Your task to perform on an android device: Do I have any events this weekend? Image 0: 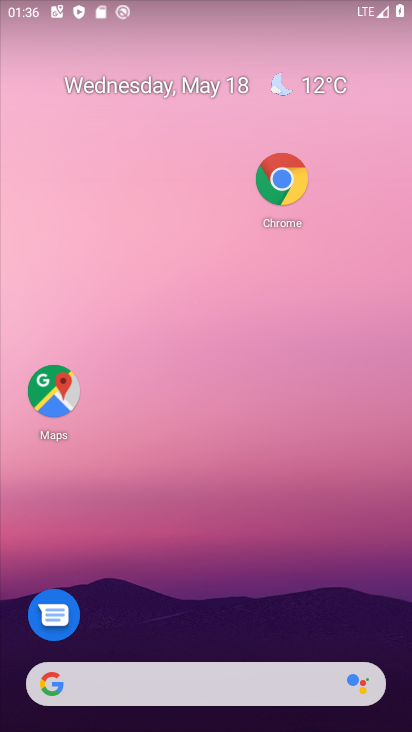
Step 0: press home button
Your task to perform on an android device: Do I have any events this weekend? Image 1: 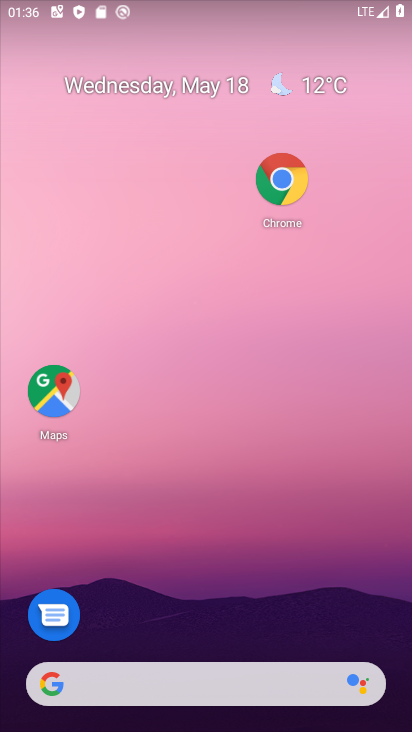
Step 1: drag from (140, 687) to (253, 147)
Your task to perform on an android device: Do I have any events this weekend? Image 2: 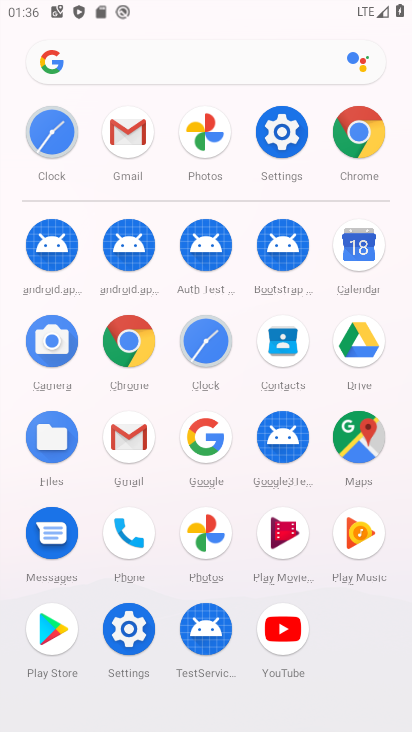
Step 2: click (355, 251)
Your task to perform on an android device: Do I have any events this weekend? Image 3: 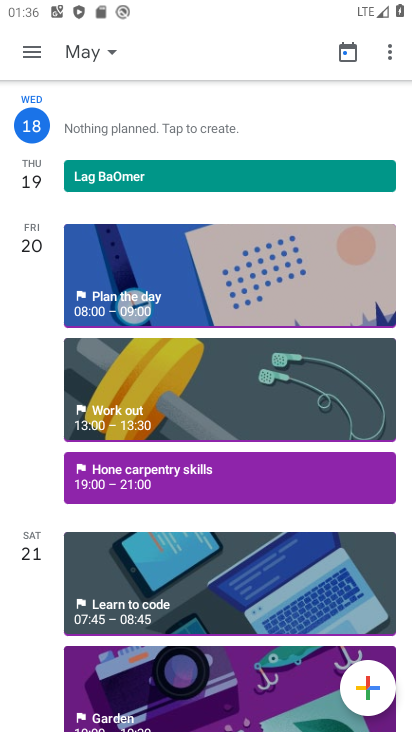
Step 3: click (85, 56)
Your task to perform on an android device: Do I have any events this weekend? Image 4: 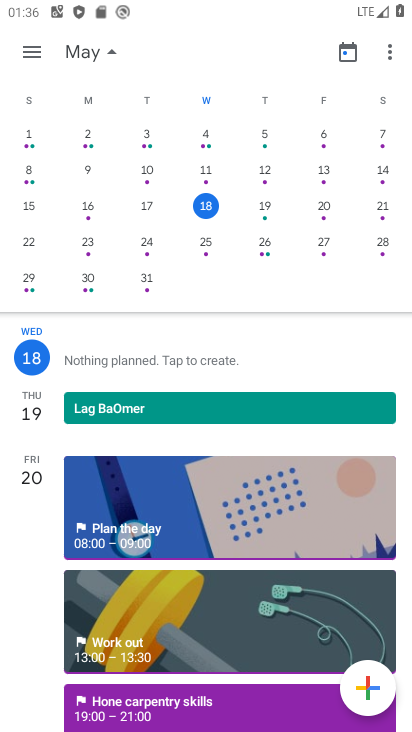
Step 4: click (382, 210)
Your task to perform on an android device: Do I have any events this weekend? Image 5: 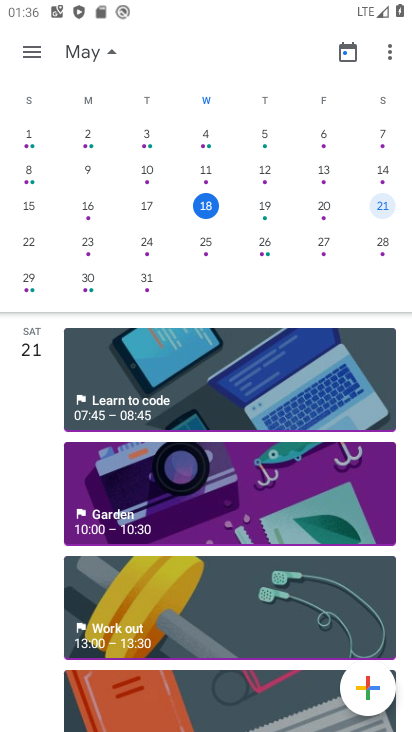
Step 5: click (38, 52)
Your task to perform on an android device: Do I have any events this weekend? Image 6: 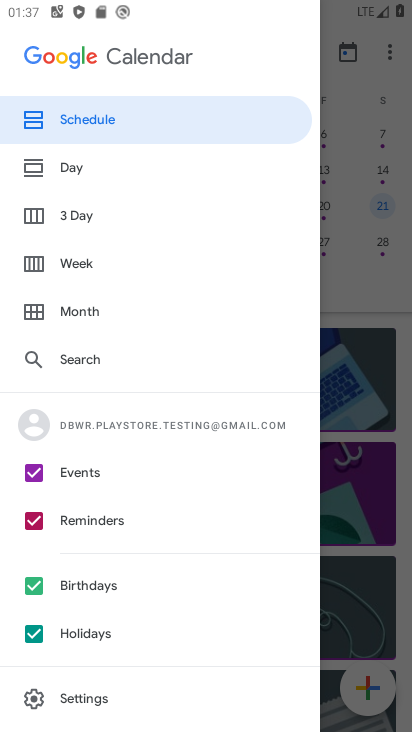
Step 6: click (94, 122)
Your task to perform on an android device: Do I have any events this weekend? Image 7: 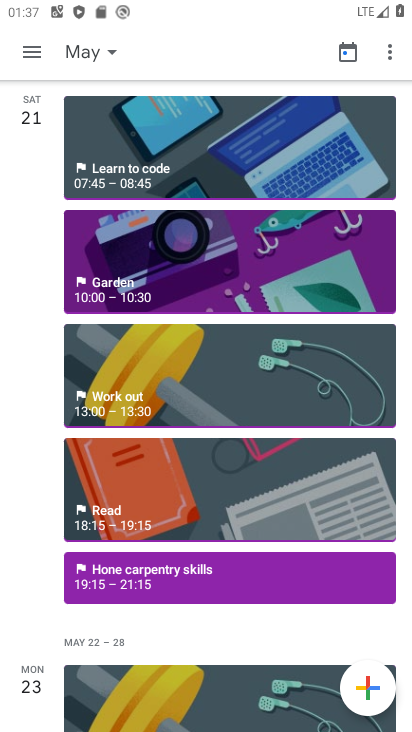
Step 7: task complete